Your task to perform on an android device: Open the calendar and show me this week's events? Image 0: 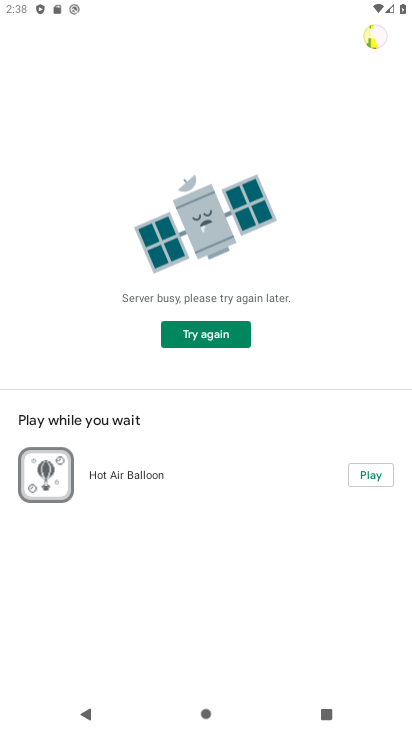
Step 0: press home button
Your task to perform on an android device: Open the calendar and show me this week's events? Image 1: 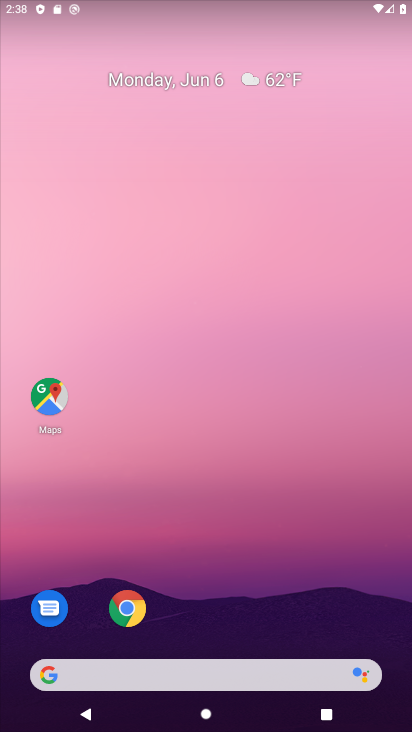
Step 1: drag from (312, 104) to (316, 58)
Your task to perform on an android device: Open the calendar and show me this week's events? Image 2: 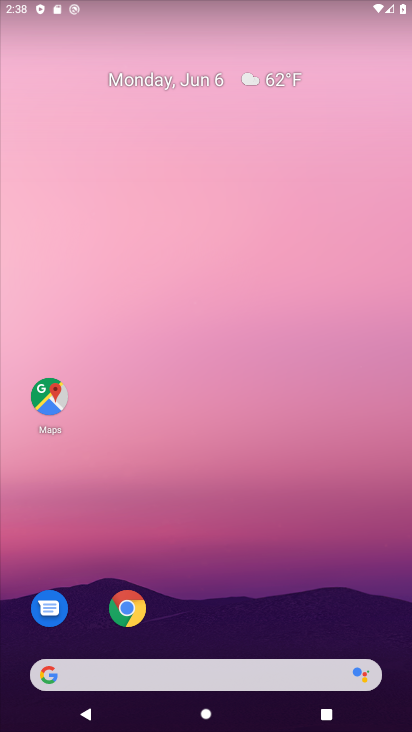
Step 2: drag from (261, 560) to (251, 10)
Your task to perform on an android device: Open the calendar and show me this week's events? Image 3: 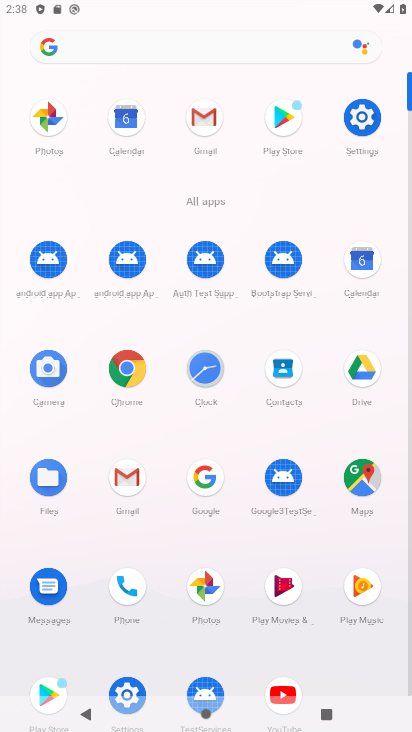
Step 3: click (369, 266)
Your task to perform on an android device: Open the calendar and show me this week's events? Image 4: 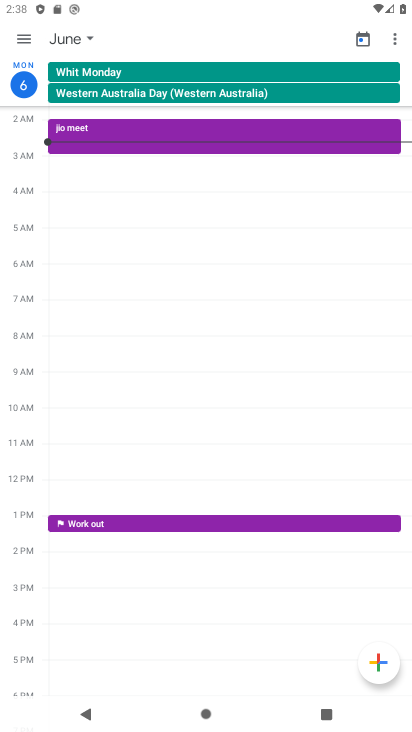
Step 4: click (18, 30)
Your task to perform on an android device: Open the calendar and show me this week's events? Image 5: 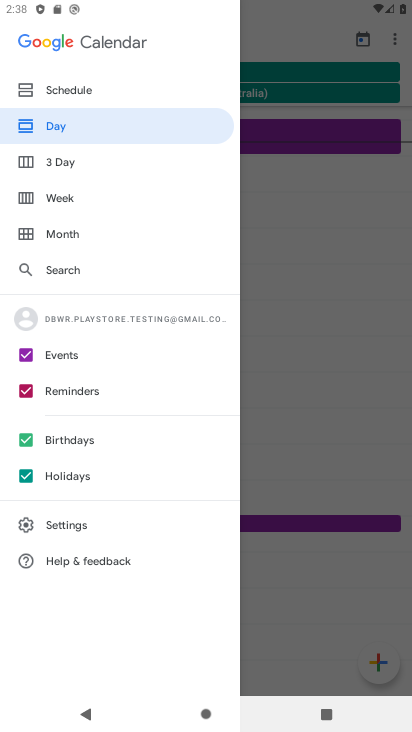
Step 5: click (91, 94)
Your task to perform on an android device: Open the calendar and show me this week's events? Image 6: 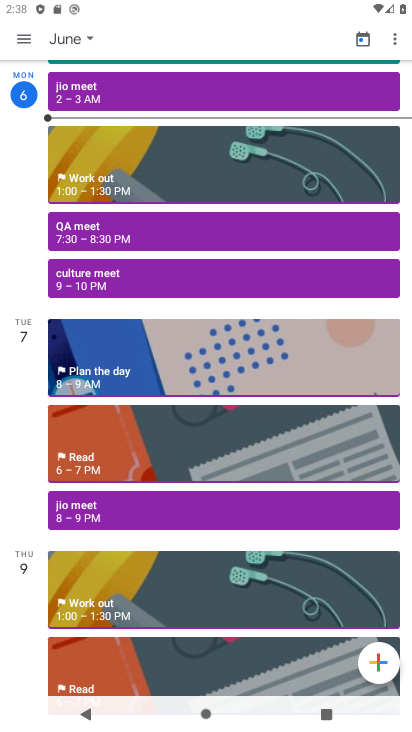
Step 6: click (87, 38)
Your task to perform on an android device: Open the calendar and show me this week's events? Image 7: 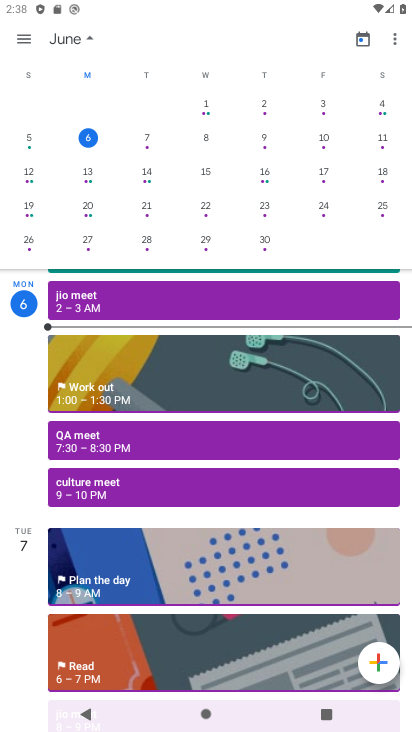
Step 7: click (86, 140)
Your task to perform on an android device: Open the calendar and show me this week's events? Image 8: 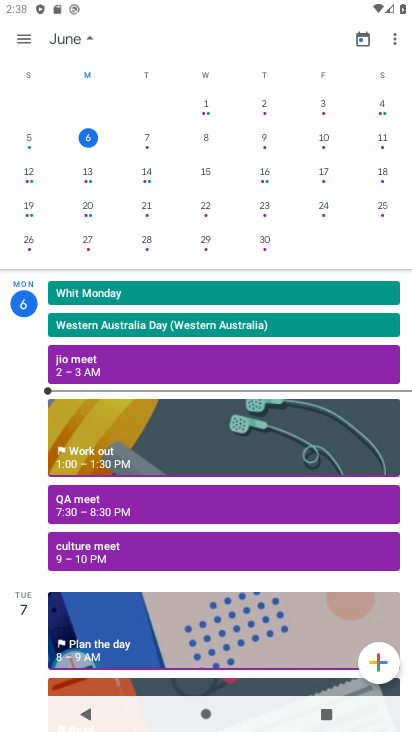
Step 8: task complete